Your task to perform on an android device: Go to privacy settings Image 0: 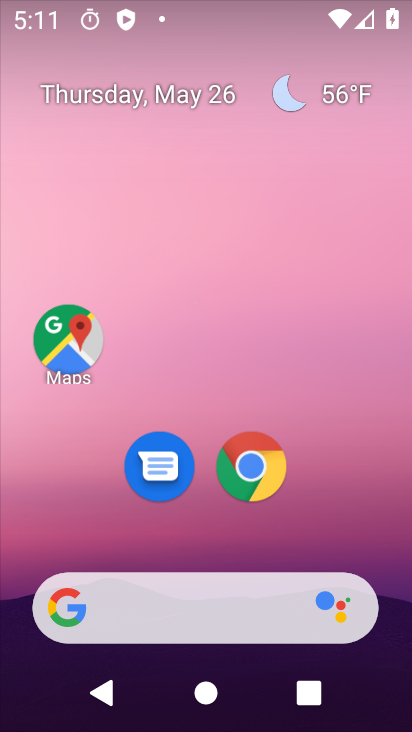
Step 0: drag from (296, 514) to (292, 29)
Your task to perform on an android device: Go to privacy settings Image 1: 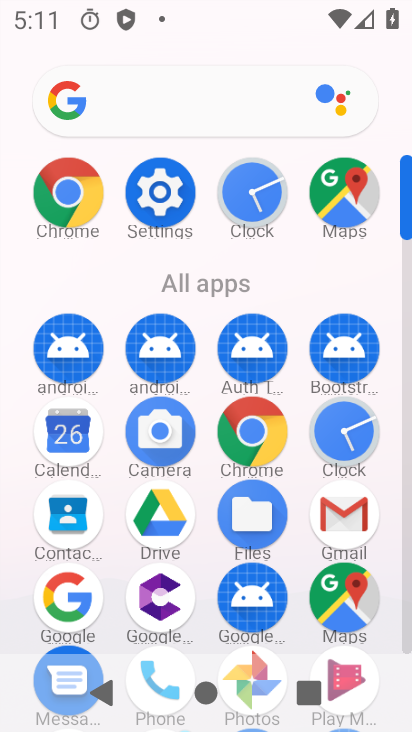
Step 1: click (242, 434)
Your task to perform on an android device: Go to privacy settings Image 2: 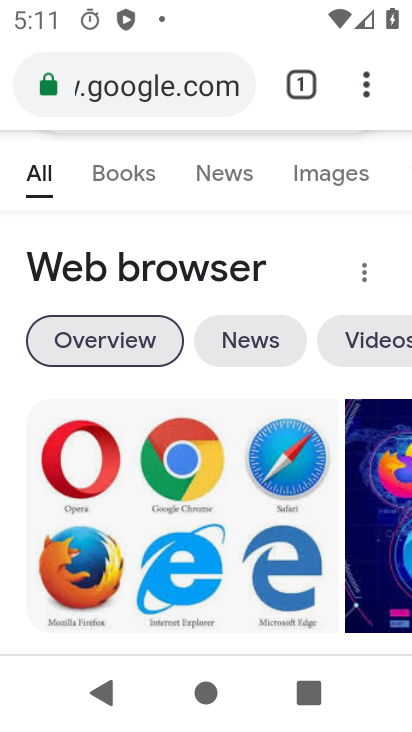
Step 2: drag from (367, 76) to (157, 515)
Your task to perform on an android device: Go to privacy settings Image 3: 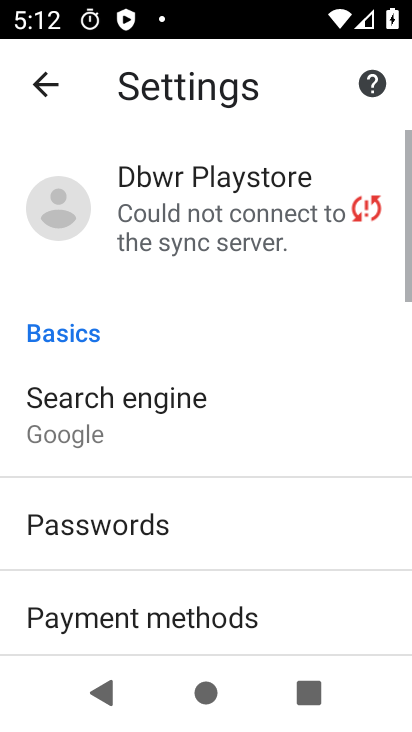
Step 3: drag from (245, 600) to (282, 188)
Your task to perform on an android device: Go to privacy settings Image 4: 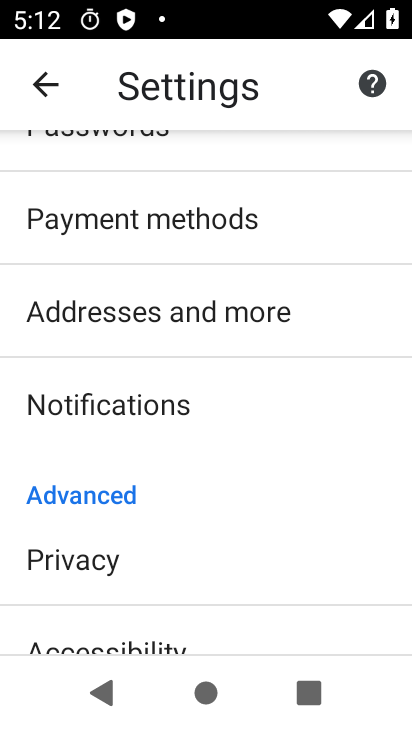
Step 4: click (63, 555)
Your task to perform on an android device: Go to privacy settings Image 5: 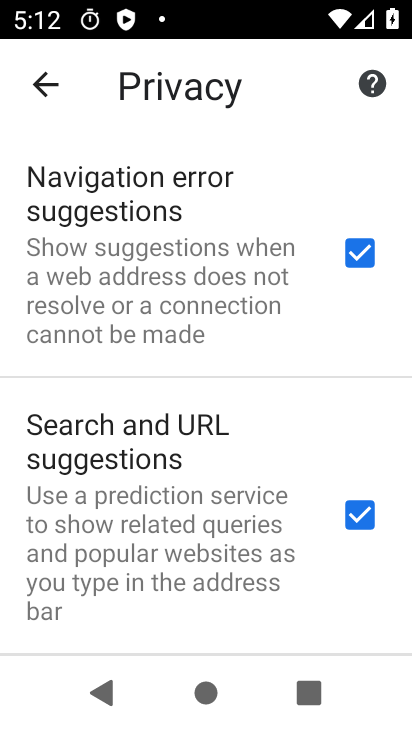
Step 5: task complete